Your task to perform on an android device: search for starred emails in the gmail app Image 0: 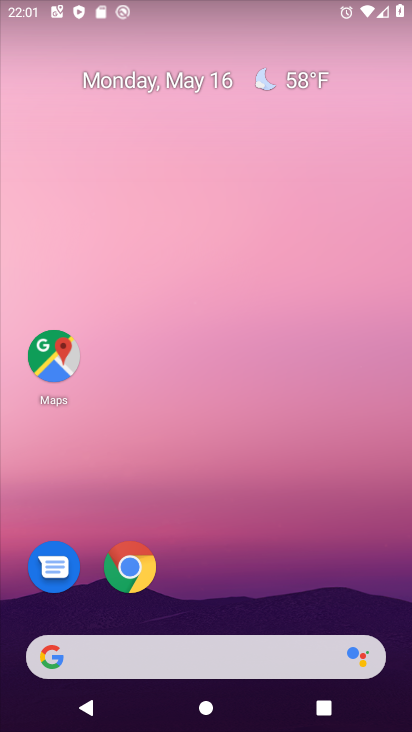
Step 0: drag from (285, 530) to (320, 202)
Your task to perform on an android device: search for starred emails in the gmail app Image 1: 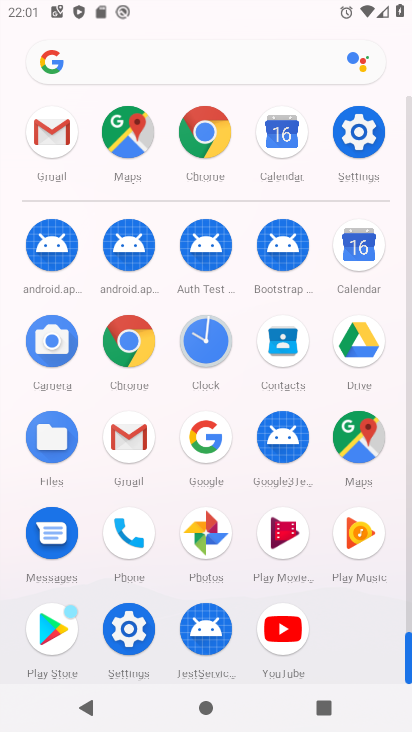
Step 1: click (132, 427)
Your task to perform on an android device: search for starred emails in the gmail app Image 2: 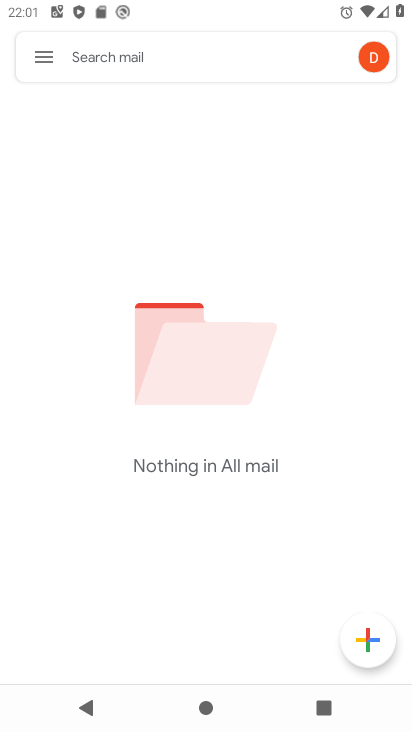
Step 2: click (35, 57)
Your task to perform on an android device: search for starred emails in the gmail app Image 3: 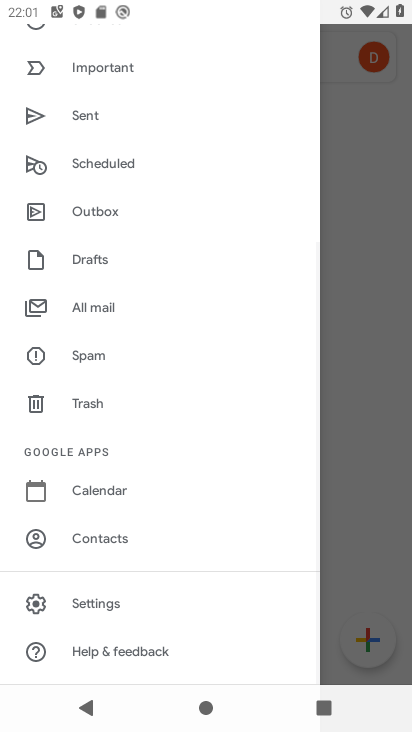
Step 3: drag from (153, 188) to (101, 613)
Your task to perform on an android device: search for starred emails in the gmail app Image 4: 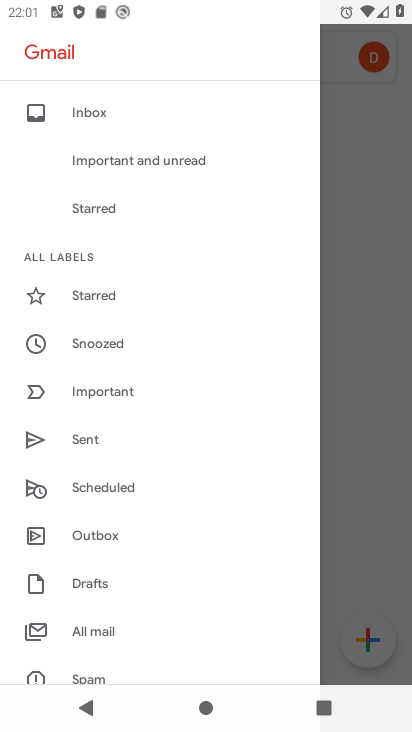
Step 4: click (118, 296)
Your task to perform on an android device: search for starred emails in the gmail app Image 5: 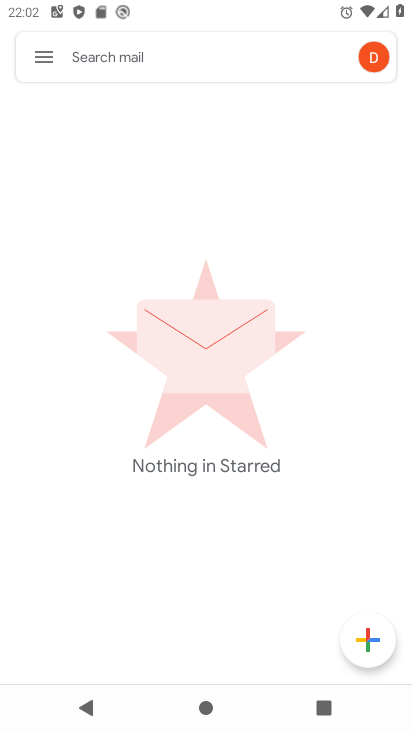
Step 5: click (44, 55)
Your task to perform on an android device: search for starred emails in the gmail app Image 6: 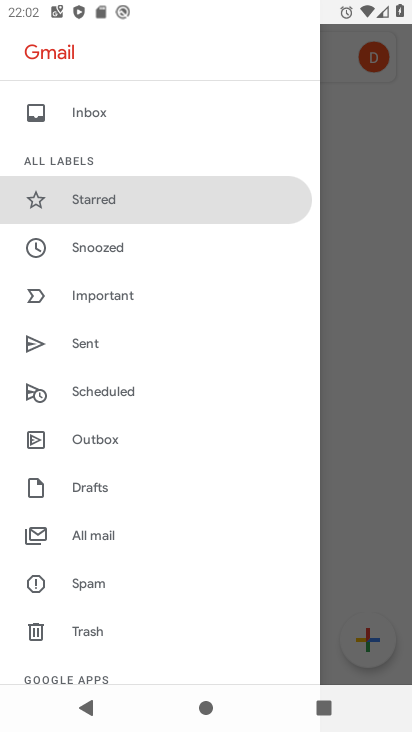
Step 6: click (225, 187)
Your task to perform on an android device: search for starred emails in the gmail app Image 7: 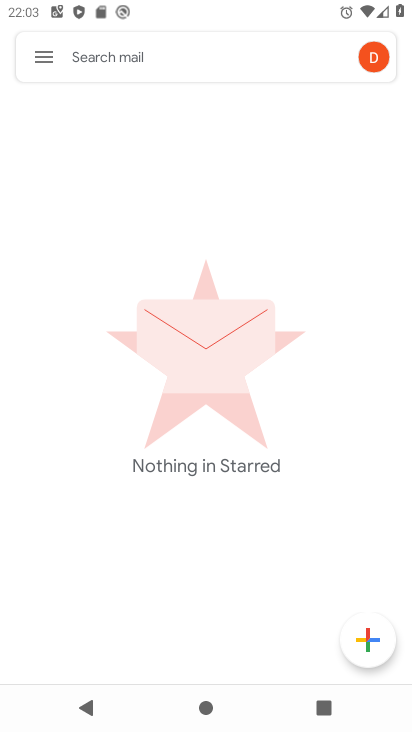
Step 7: task complete